Your task to perform on an android device: Open my contact list Image 0: 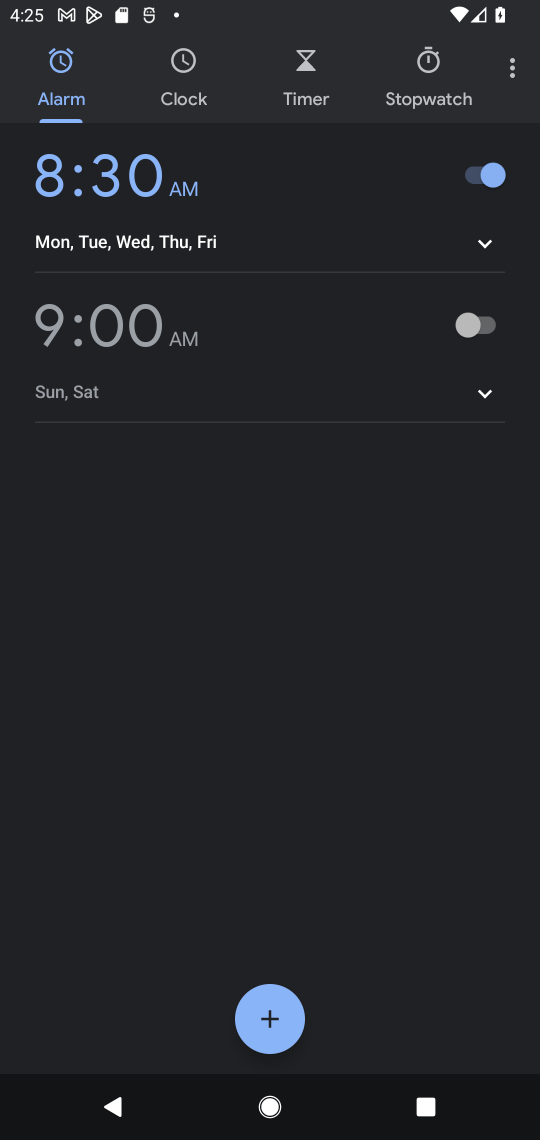
Step 0: press home button
Your task to perform on an android device: Open my contact list Image 1: 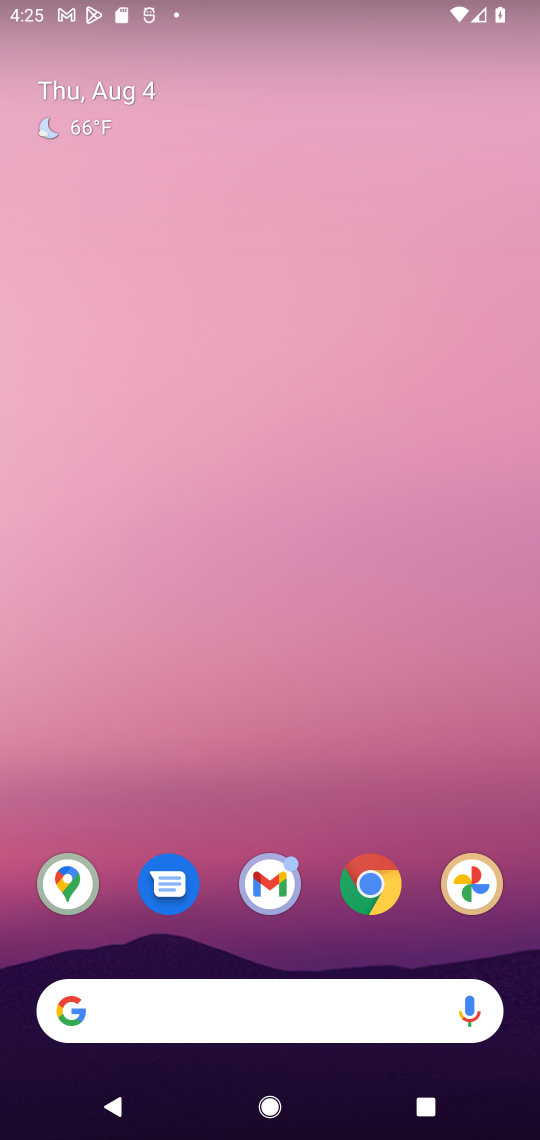
Step 1: drag from (207, 959) to (242, 117)
Your task to perform on an android device: Open my contact list Image 2: 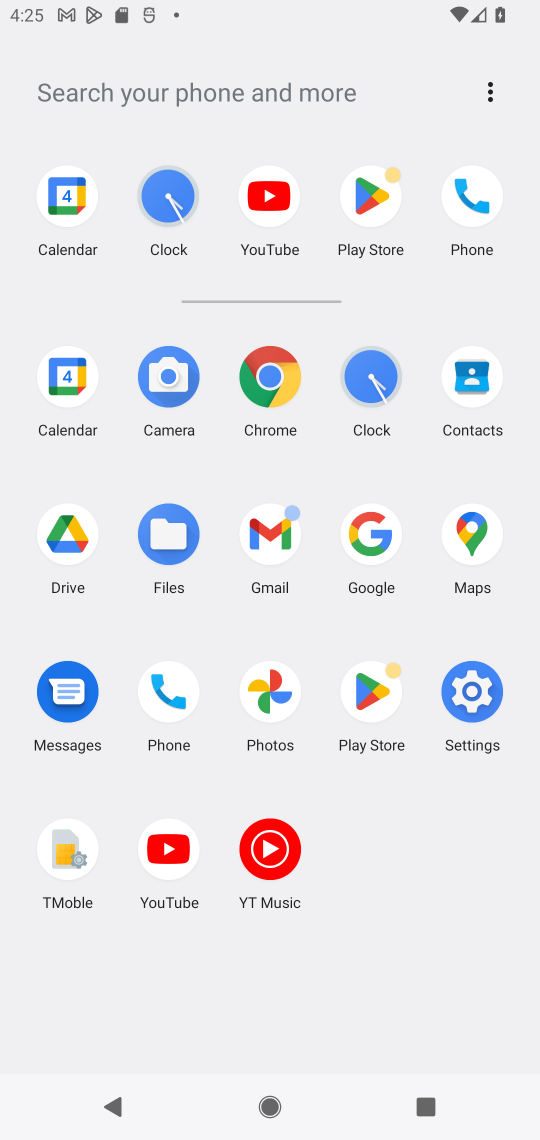
Step 2: click (457, 391)
Your task to perform on an android device: Open my contact list Image 3: 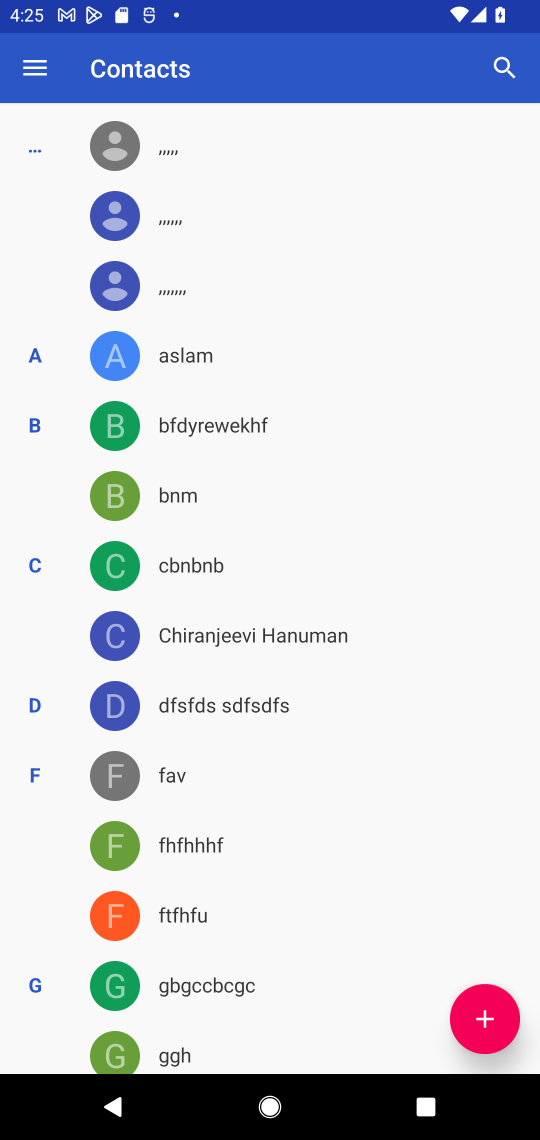
Step 3: task complete